Your task to perform on an android device: Go to Yahoo.com Image 0: 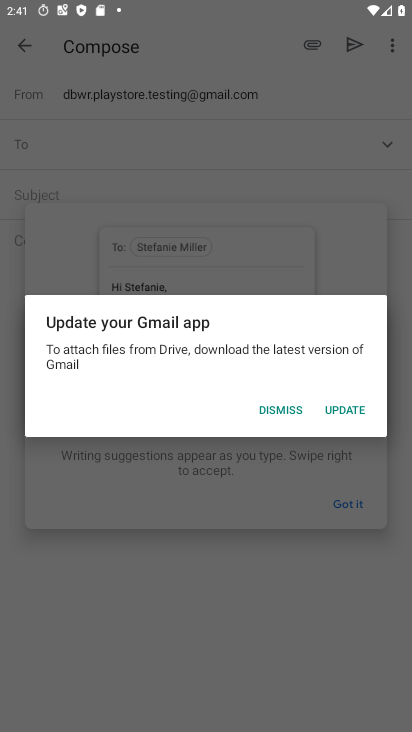
Step 0: press home button
Your task to perform on an android device: Go to Yahoo.com Image 1: 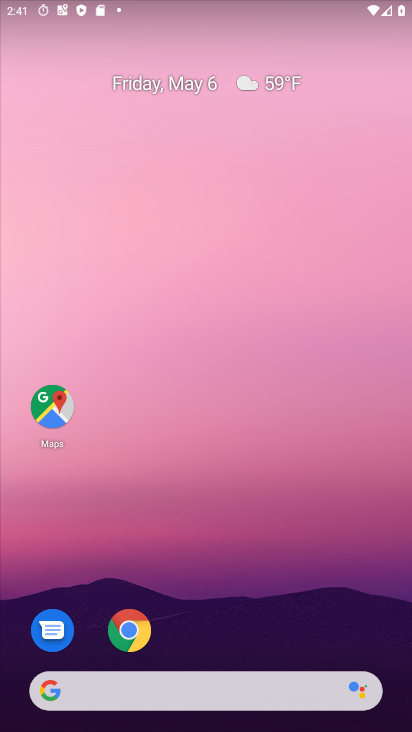
Step 1: click (143, 638)
Your task to perform on an android device: Go to Yahoo.com Image 2: 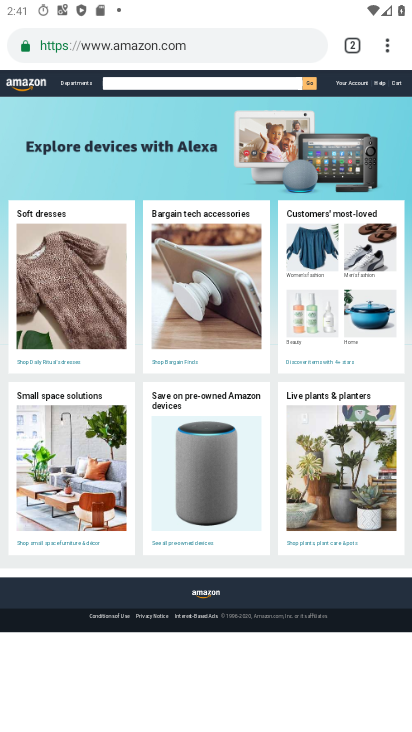
Step 2: click (352, 52)
Your task to perform on an android device: Go to Yahoo.com Image 3: 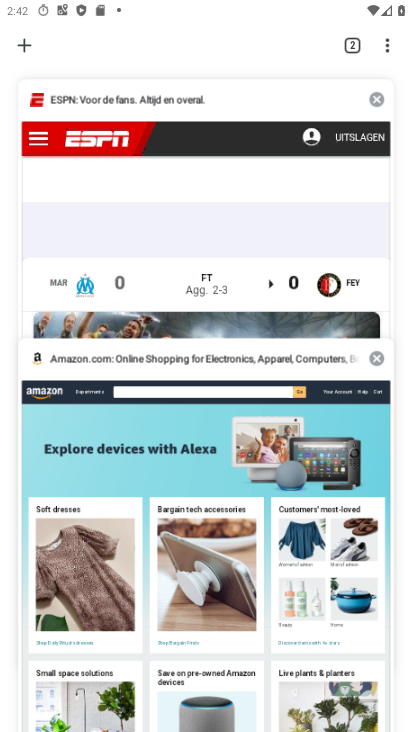
Step 3: click (23, 46)
Your task to perform on an android device: Go to Yahoo.com Image 4: 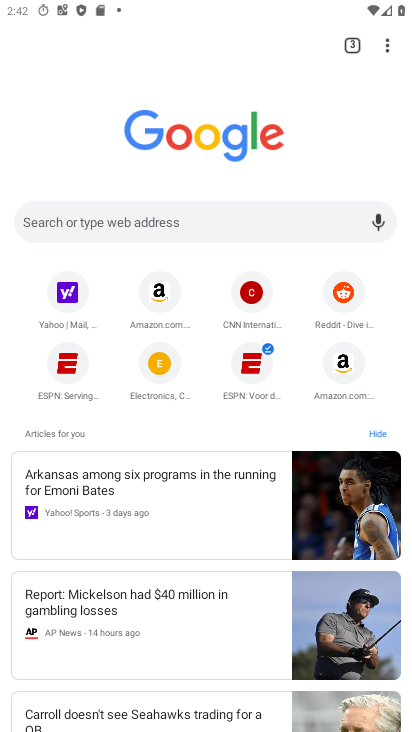
Step 4: click (83, 314)
Your task to perform on an android device: Go to Yahoo.com Image 5: 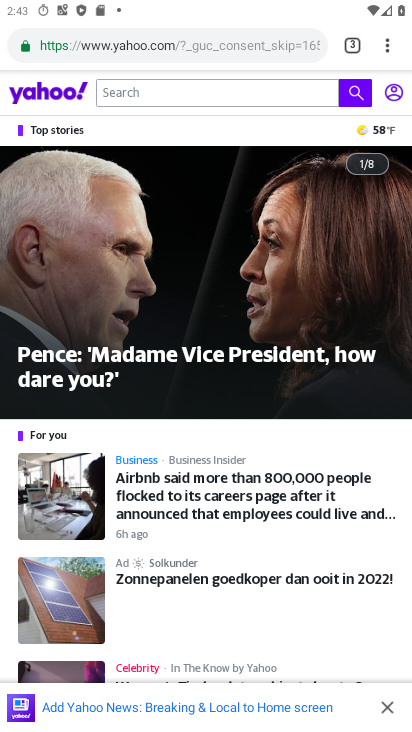
Step 5: task complete